Your task to perform on an android device: toggle data saver in the chrome app Image 0: 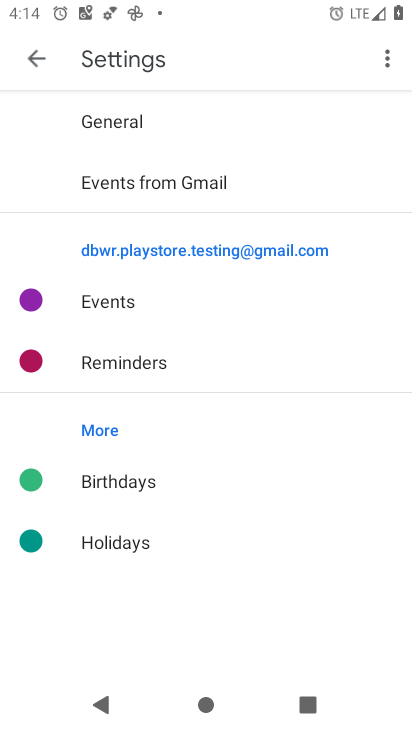
Step 0: press home button
Your task to perform on an android device: toggle data saver in the chrome app Image 1: 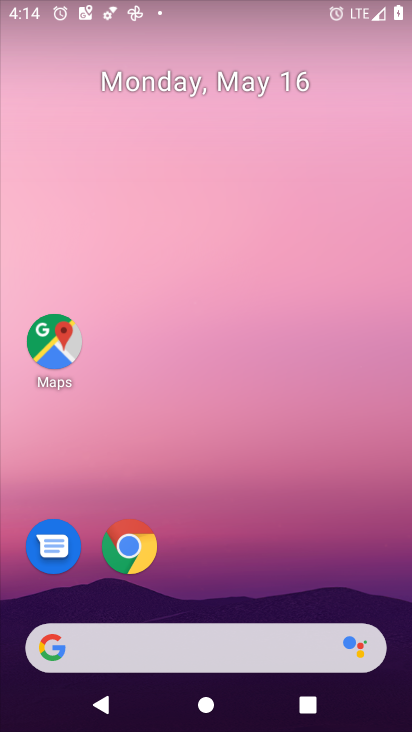
Step 1: drag from (341, 573) to (313, 68)
Your task to perform on an android device: toggle data saver in the chrome app Image 2: 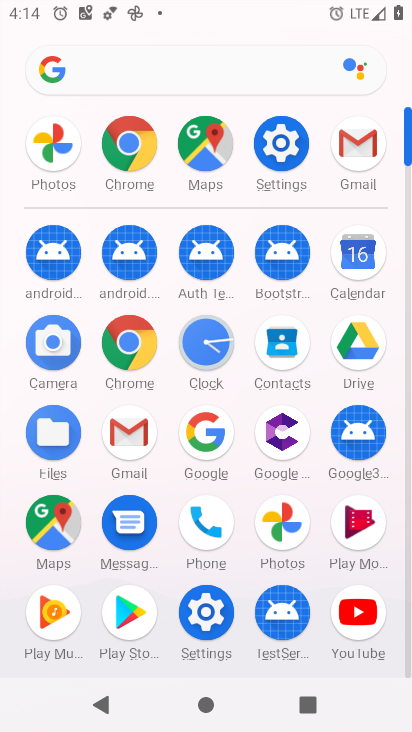
Step 2: click (147, 352)
Your task to perform on an android device: toggle data saver in the chrome app Image 3: 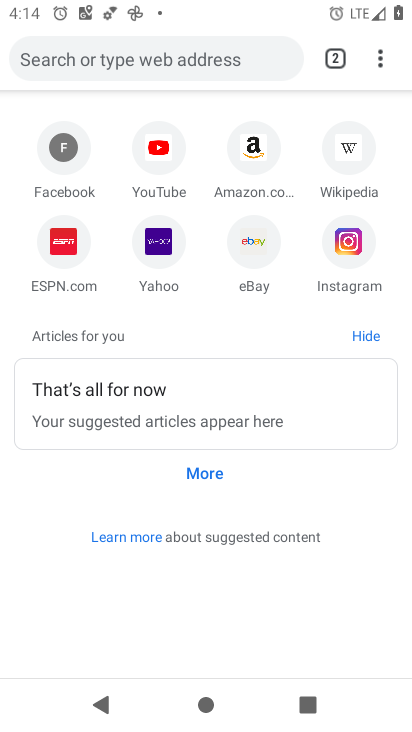
Step 3: click (387, 53)
Your task to perform on an android device: toggle data saver in the chrome app Image 4: 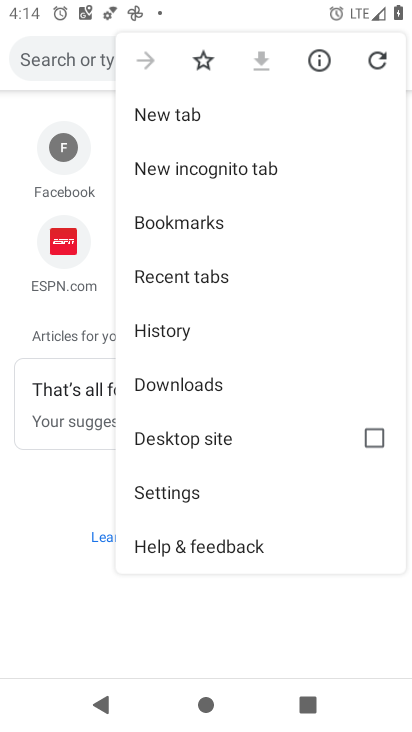
Step 4: click (196, 500)
Your task to perform on an android device: toggle data saver in the chrome app Image 5: 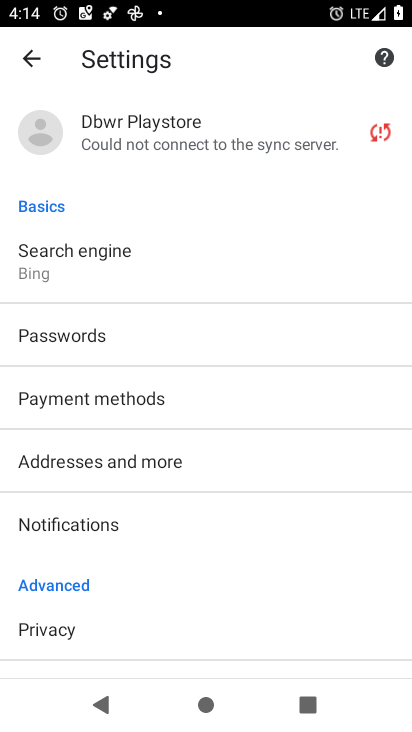
Step 5: drag from (269, 608) to (293, 383)
Your task to perform on an android device: toggle data saver in the chrome app Image 6: 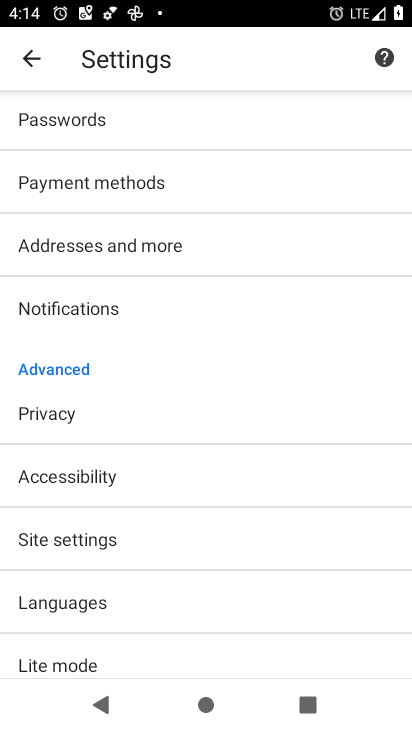
Step 6: drag from (283, 602) to (290, 415)
Your task to perform on an android device: toggle data saver in the chrome app Image 7: 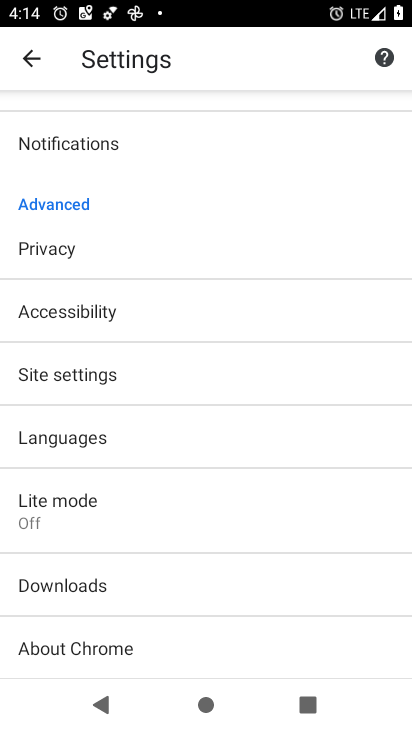
Step 7: drag from (273, 621) to (264, 453)
Your task to perform on an android device: toggle data saver in the chrome app Image 8: 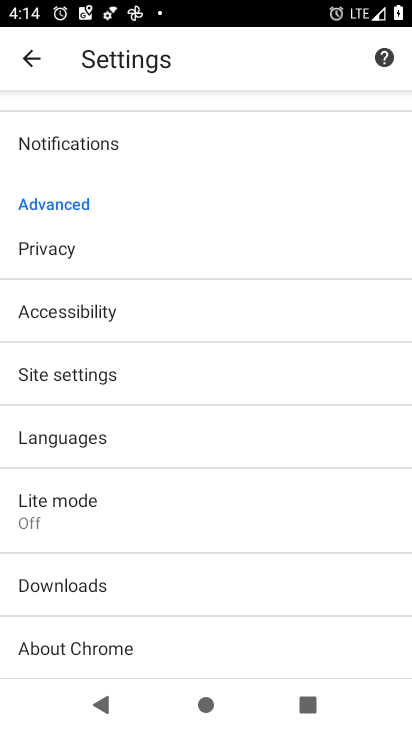
Step 8: click (140, 511)
Your task to perform on an android device: toggle data saver in the chrome app Image 9: 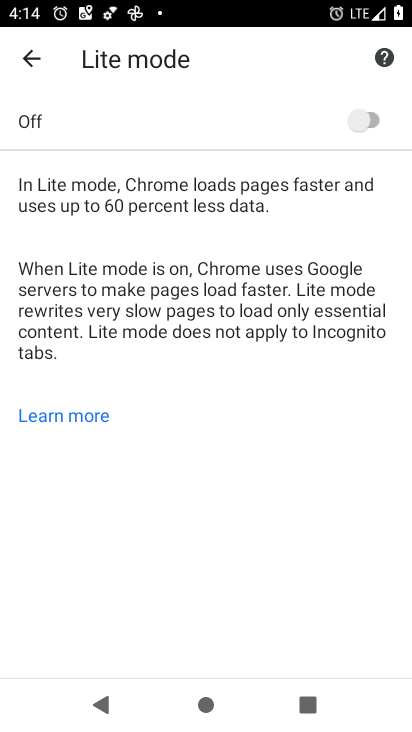
Step 9: click (379, 115)
Your task to perform on an android device: toggle data saver in the chrome app Image 10: 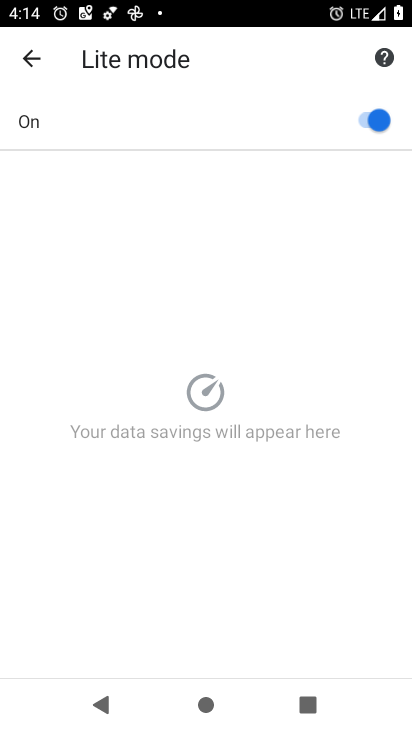
Step 10: task complete